Your task to perform on an android device: Open Yahoo.com Image 0: 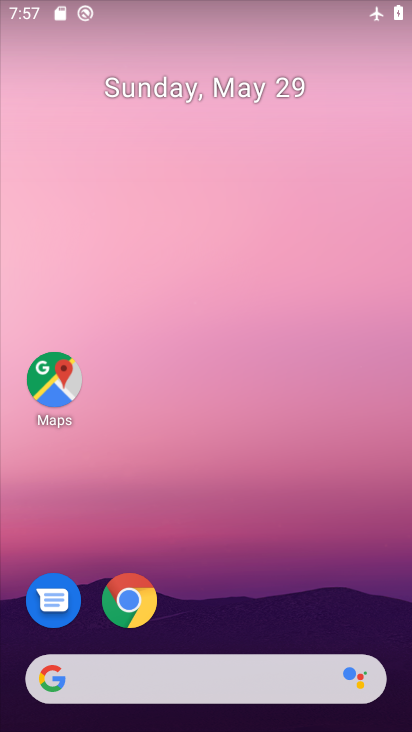
Step 0: click (133, 612)
Your task to perform on an android device: Open Yahoo.com Image 1: 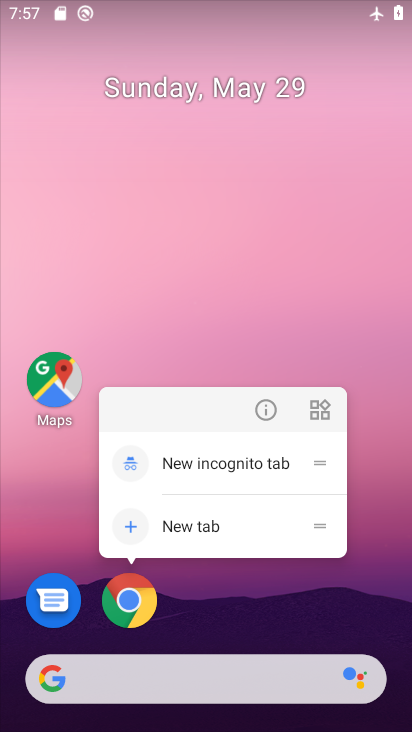
Step 1: click (125, 608)
Your task to perform on an android device: Open Yahoo.com Image 2: 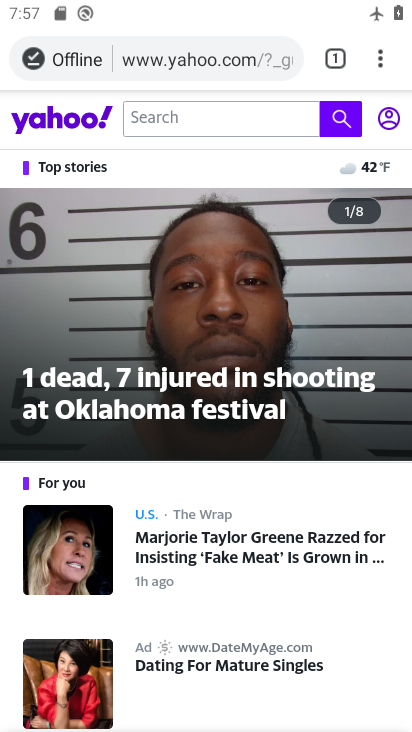
Step 2: task complete